Your task to perform on an android device: check google app version Image 0: 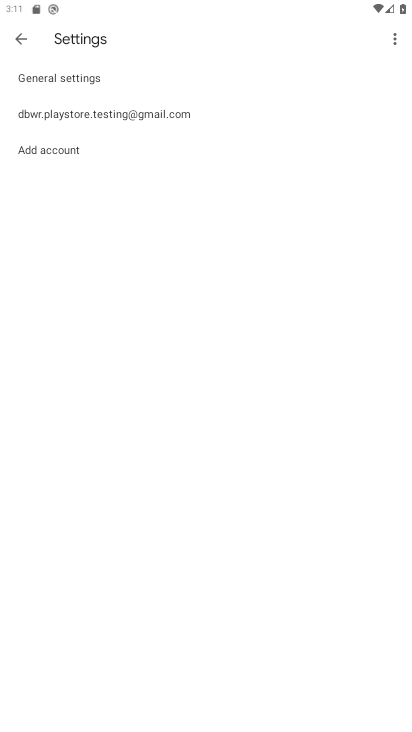
Step 0: press home button
Your task to perform on an android device: check google app version Image 1: 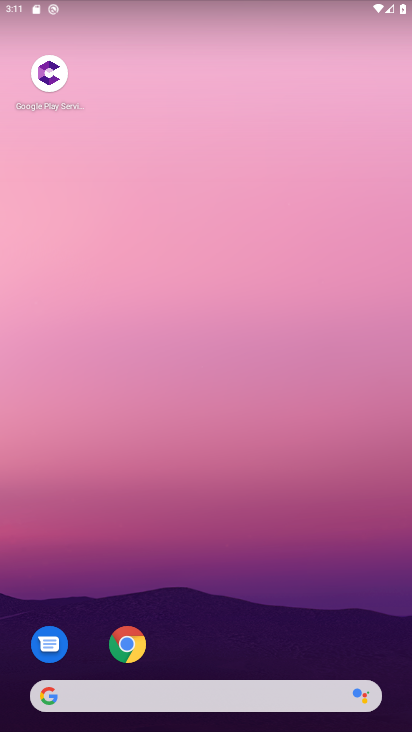
Step 1: drag from (267, 647) to (229, 265)
Your task to perform on an android device: check google app version Image 2: 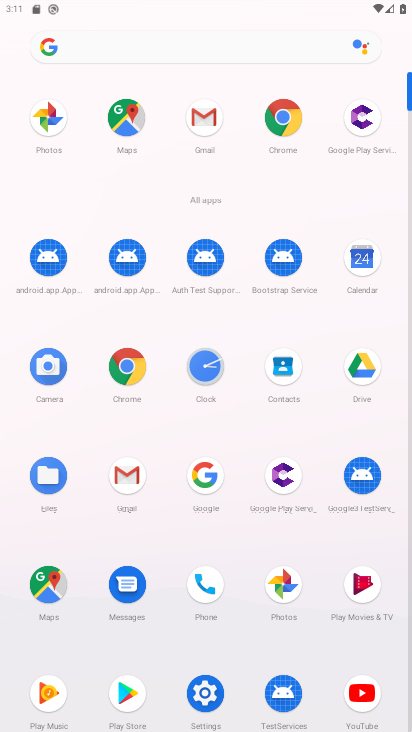
Step 2: click (272, 139)
Your task to perform on an android device: check google app version Image 3: 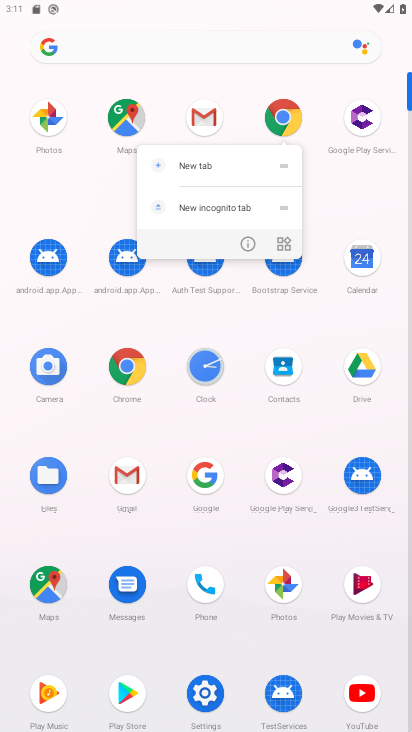
Step 3: click (251, 242)
Your task to perform on an android device: check google app version Image 4: 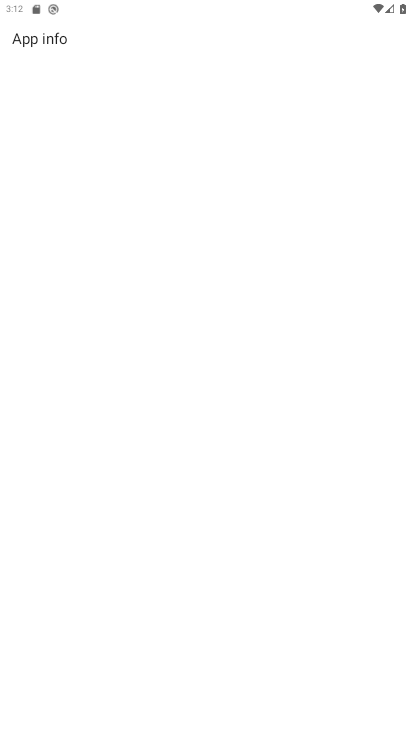
Step 4: task complete